Your task to perform on an android device: toggle translation in the chrome app Image 0: 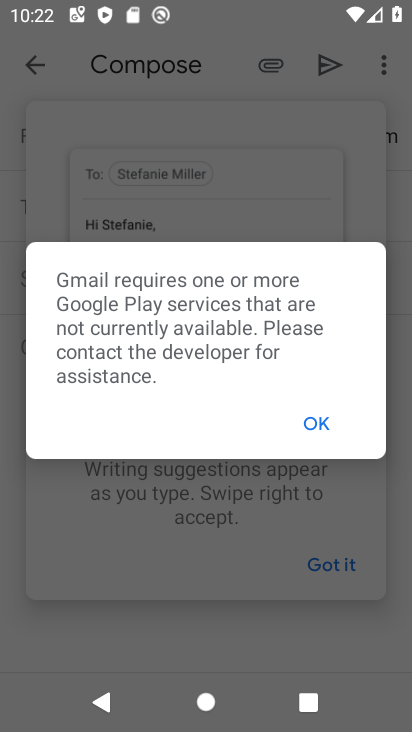
Step 0: press home button
Your task to perform on an android device: toggle translation in the chrome app Image 1: 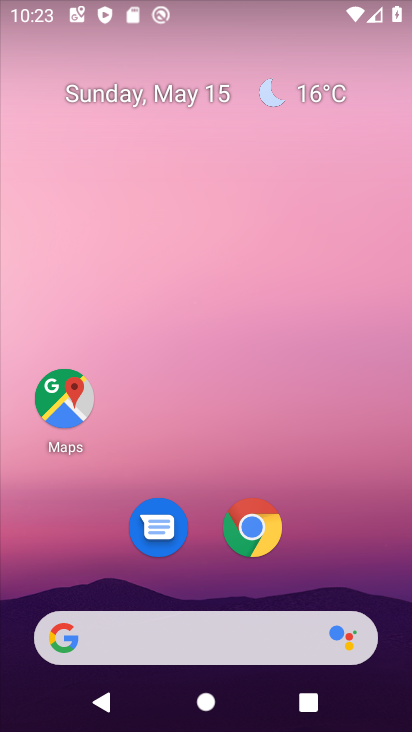
Step 1: click (259, 524)
Your task to perform on an android device: toggle translation in the chrome app Image 2: 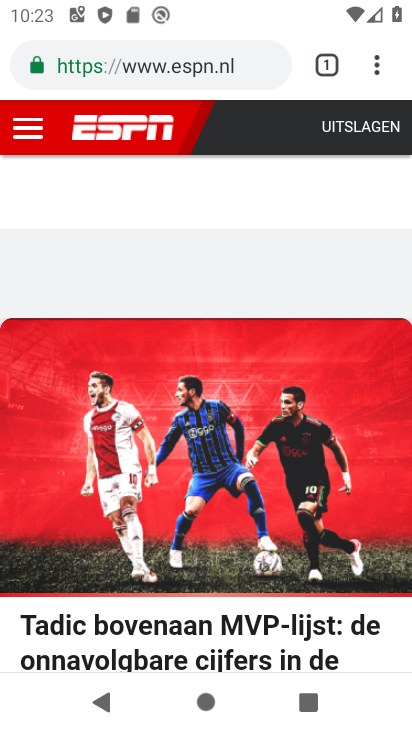
Step 2: click (375, 69)
Your task to perform on an android device: toggle translation in the chrome app Image 3: 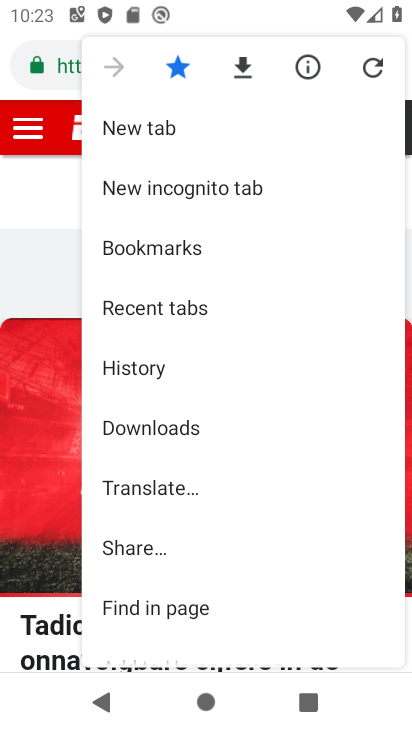
Step 3: drag from (262, 584) to (287, 102)
Your task to perform on an android device: toggle translation in the chrome app Image 4: 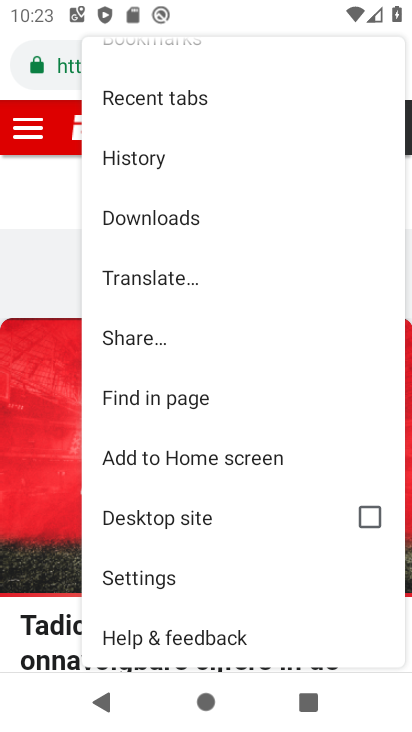
Step 4: click (130, 577)
Your task to perform on an android device: toggle translation in the chrome app Image 5: 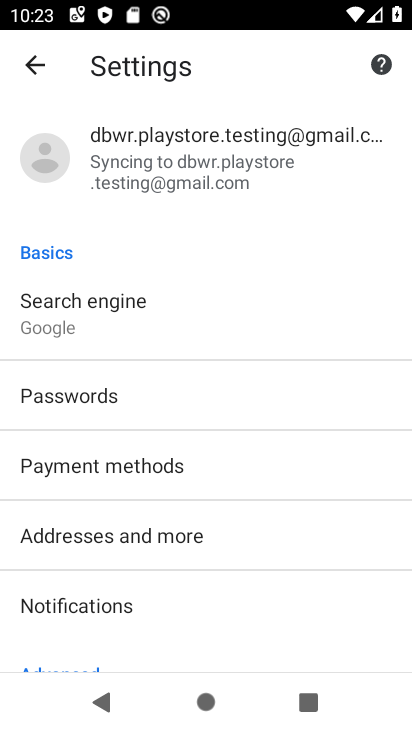
Step 5: drag from (219, 589) to (243, 148)
Your task to perform on an android device: toggle translation in the chrome app Image 6: 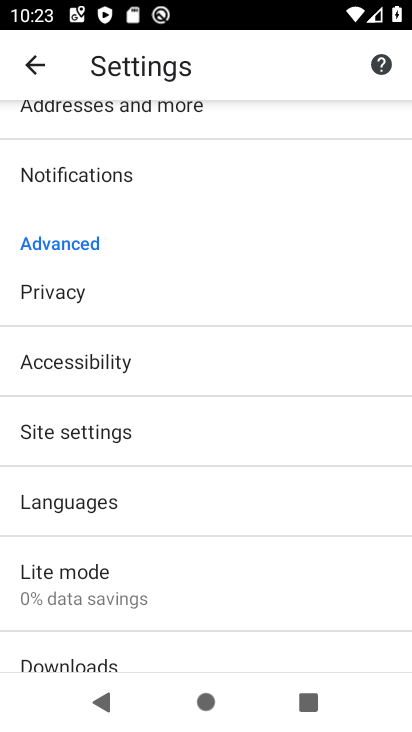
Step 6: click (65, 512)
Your task to perform on an android device: toggle translation in the chrome app Image 7: 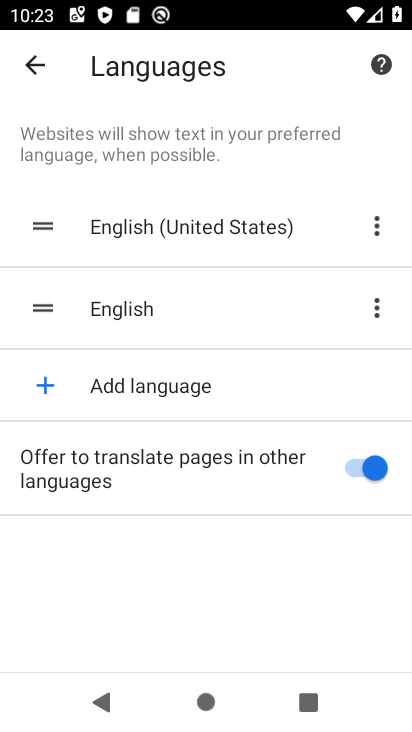
Step 7: click (378, 472)
Your task to perform on an android device: toggle translation in the chrome app Image 8: 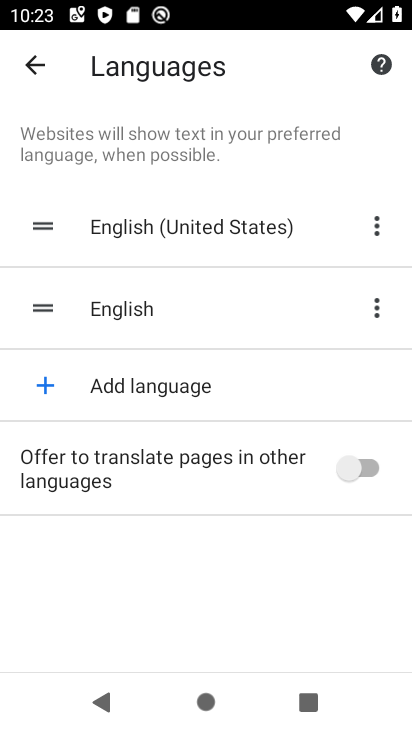
Step 8: task complete